Your task to perform on an android device: refresh tabs in the chrome app Image 0: 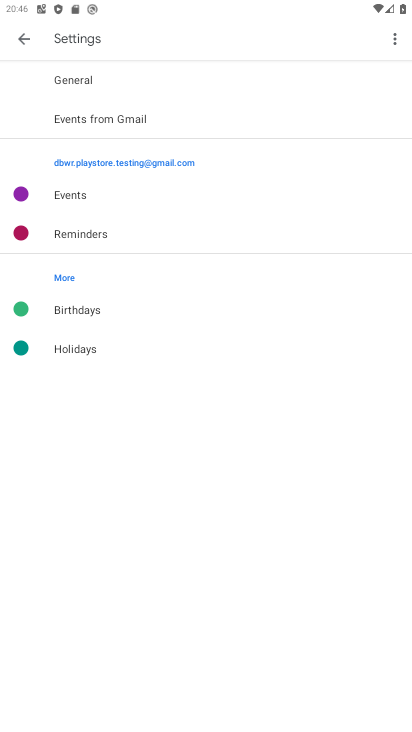
Step 0: press back button
Your task to perform on an android device: refresh tabs in the chrome app Image 1: 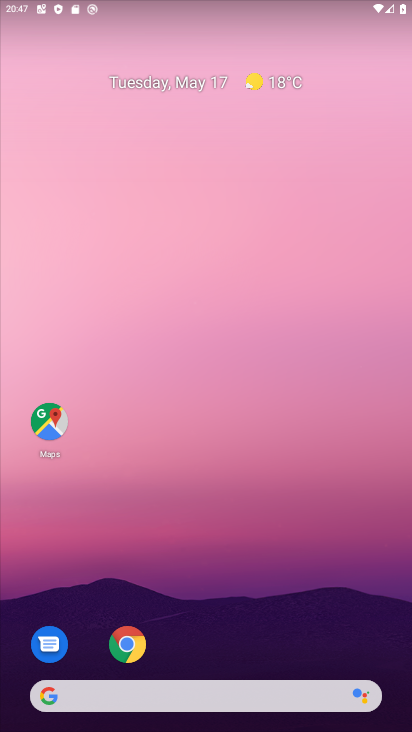
Step 1: click (126, 644)
Your task to perform on an android device: refresh tabs in the chrome app Image 2: 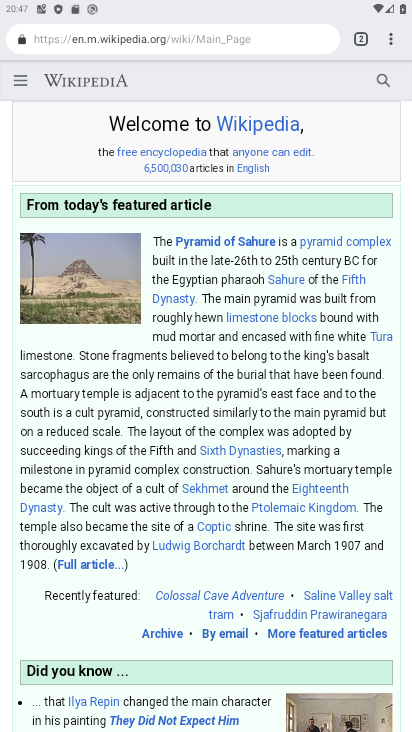
Step 2: click (391, 42)
Your task to perform on an android device: refresh tabs in the chrome app Image 3: 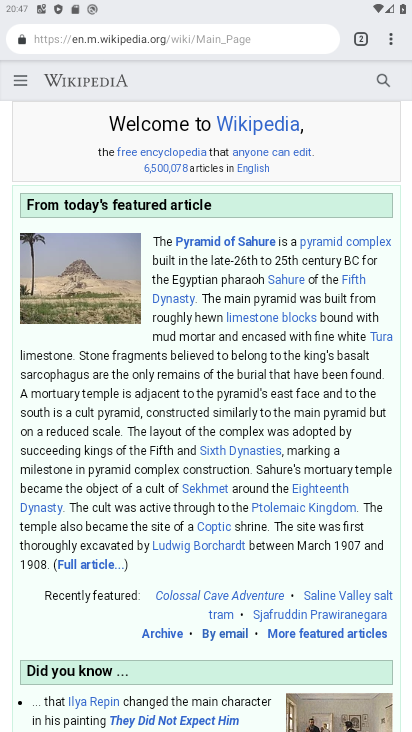
Step 3: click (389, 36)
Your task to perform on an android device: refresh tabs in the chrome app Image 4: 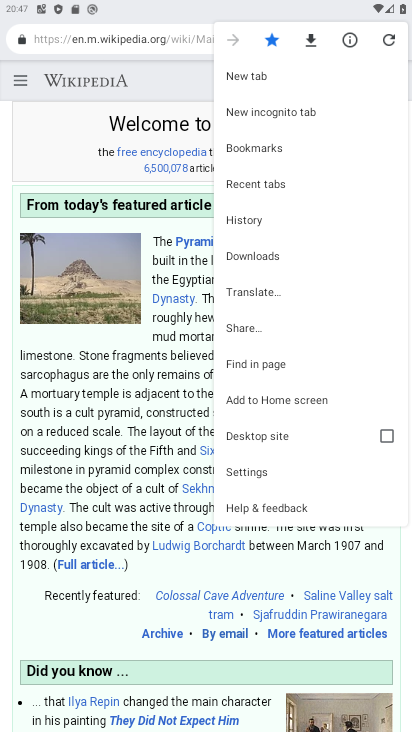
Step 4: click (392, 36)
Your task to perform on an android device: refresh tabs in the chrome app Image 5: 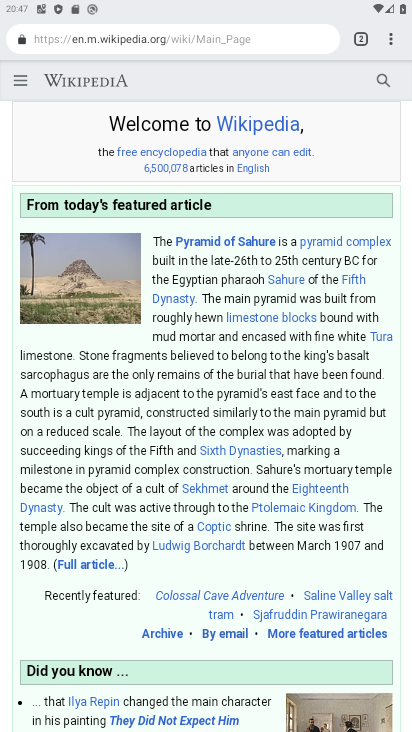
Step 5: task complete